Your task to perform on an android device: delete a single message in the gmail app Image 0: 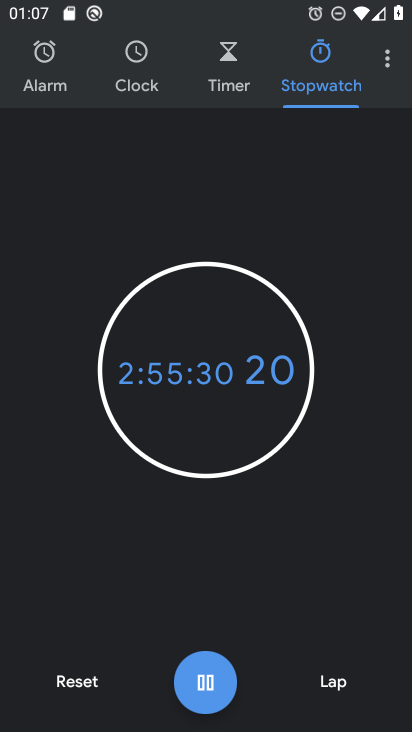
Step 0: press home button
Your task to perform on an android device: delete a single message in the gmail app Image 1: 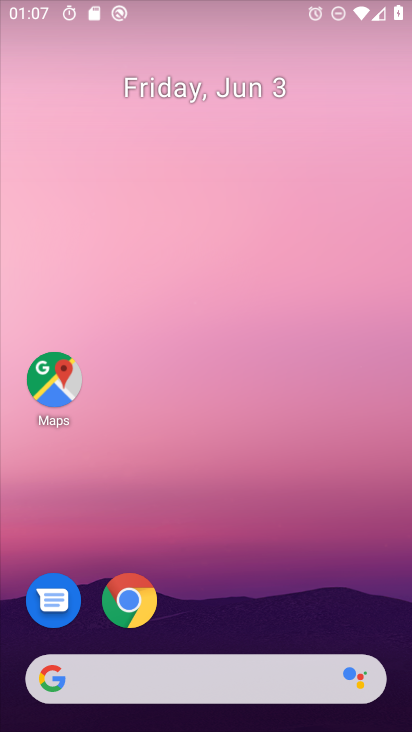
Step 1: drag from (228, 627) to (188, 72)
Your task to perform on an android device: delete a single message in the gmail app Image 2: 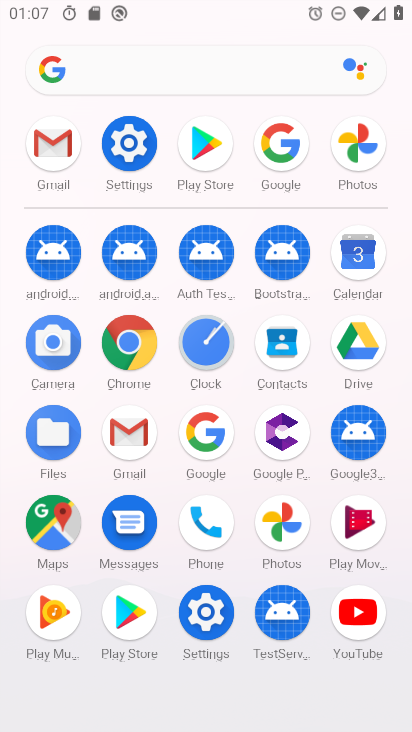
Step 2: click (132, 427)
Your task to perform on an android device: delete a single message in the gmail app Image 3: 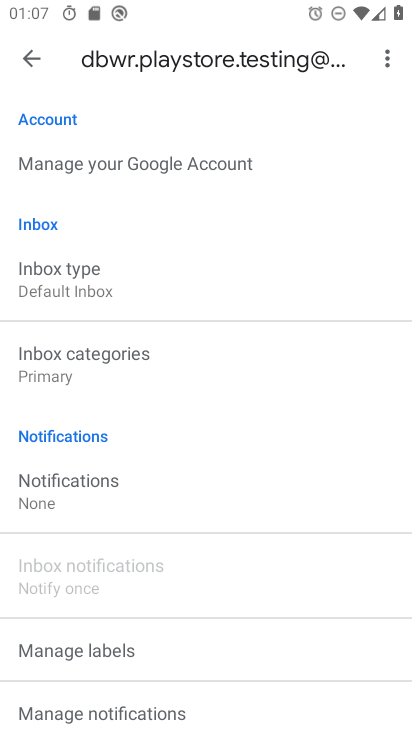
Step 3: click (133, 610)
Your task to perform on an android device: delete a single message in the gmail app Image 4: 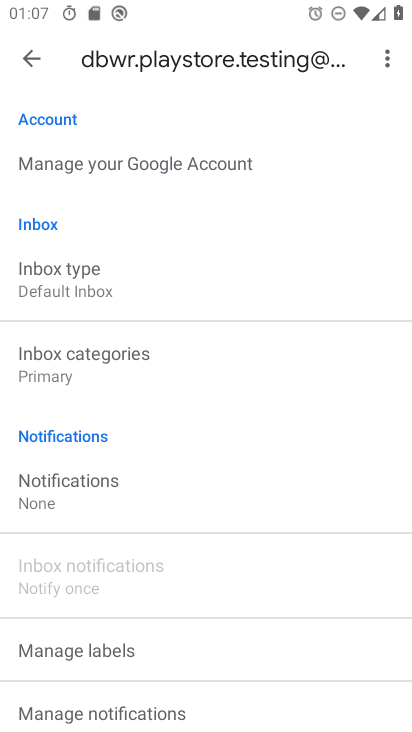
Step 4: press back button
Your task to perform on an android device: delete a single message in the gmail app Image 5: 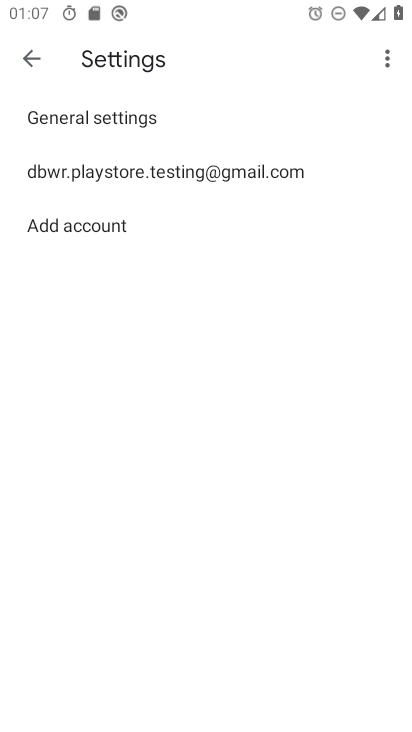
Step 5: press back button
Your task to perform on an android device: delete a single message in the gmail app Image 6: 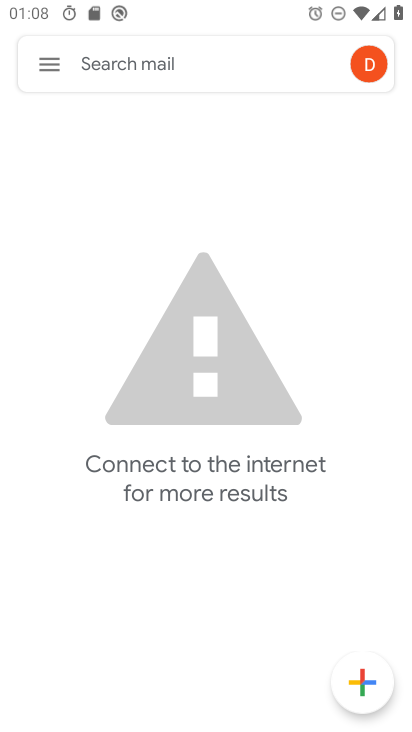
Step 6: click (43, 64)
Your task to perform on an android device: delete a single message in the gmail app Image 7: 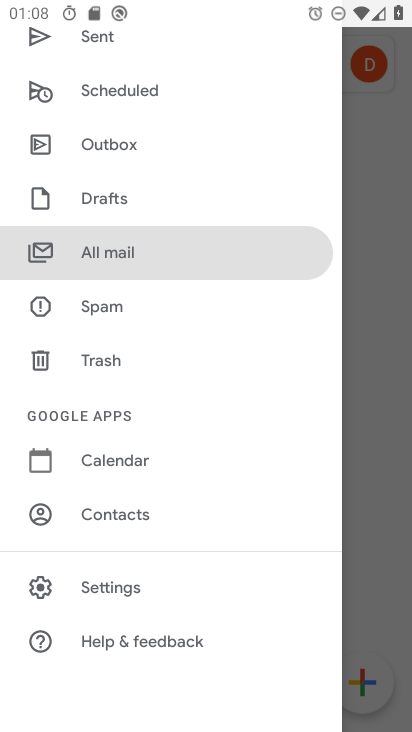
Step 7: click (118, 256)
Your task to perform on an android device: delete a single message in the gmail app Image 8: 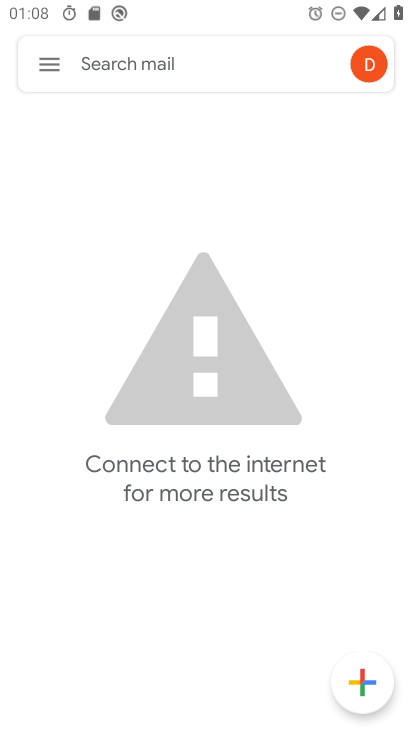
Step 8: task complete